Your task to perform on an android device: Go to location settings Image 0: 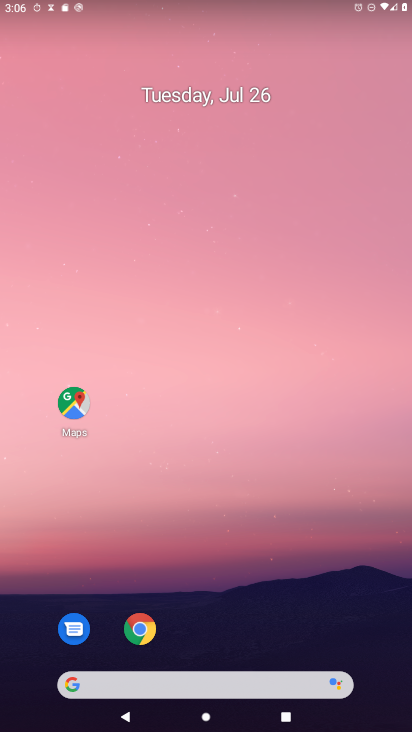
Step 0: drag from (228, 664) to (203, 52)
Your task to perform on an android device: Go to location settings Image 1: 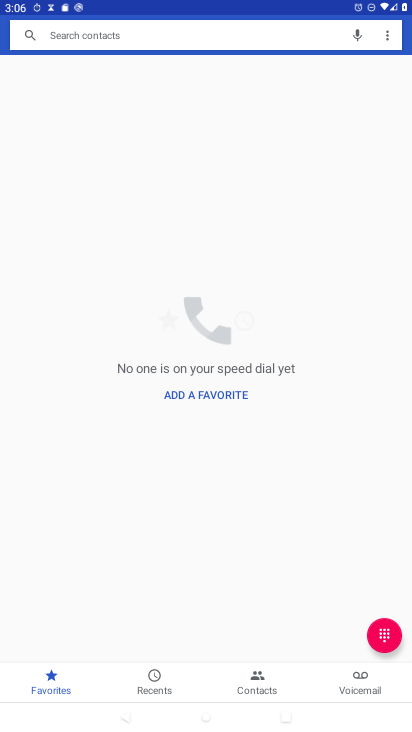
Step 1: press home button
Your task to perform on an android device: Go to location settings Image 2: 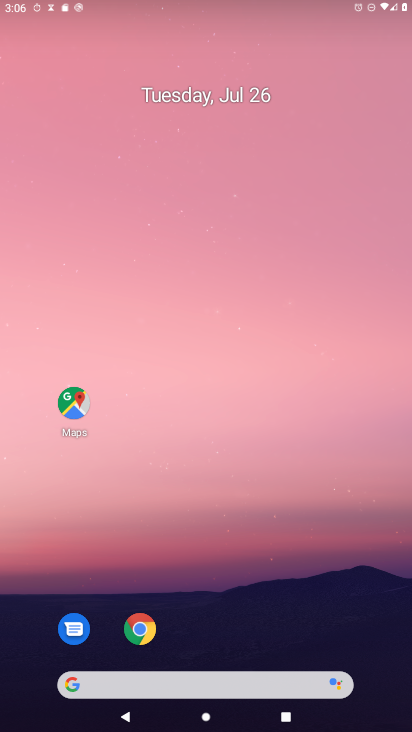
Step 2: drag from (270, 685) to (242, 31)
Your task to perform on an android device: Go to location settings Image 3: 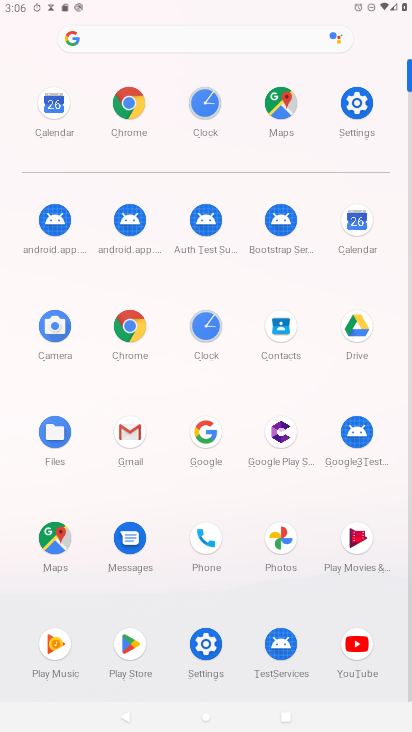
Step 3: click (341, 97)
Your task to perform on an android device: Go to location settings Image 4: 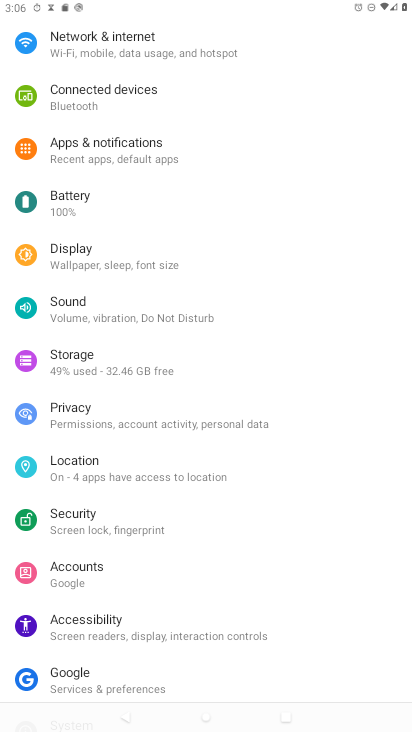
Step 4: click (92, 459)
Your task to perform on an android device: Go to location settings Image 5: 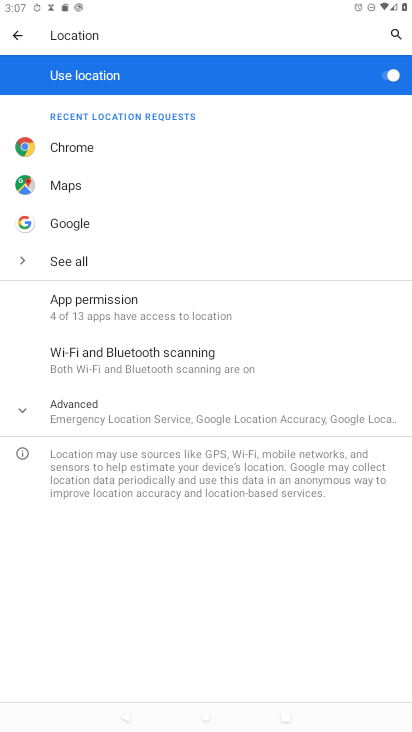
Step 5: task complete